Your task to perform on an android device: turn on airplane mode Image 0: 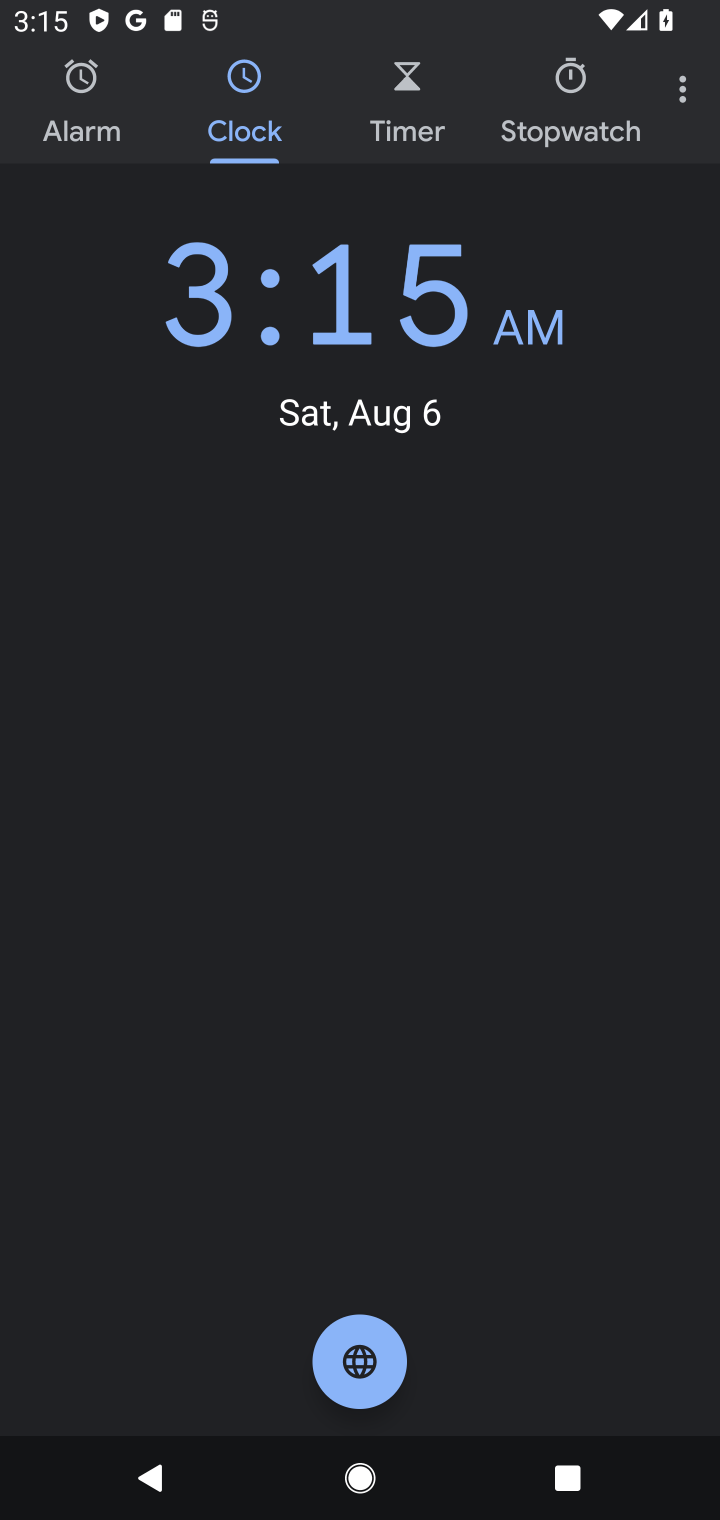
Step 0: press home button
Your task to perform on an android device: turn on airplane mode Image 1: 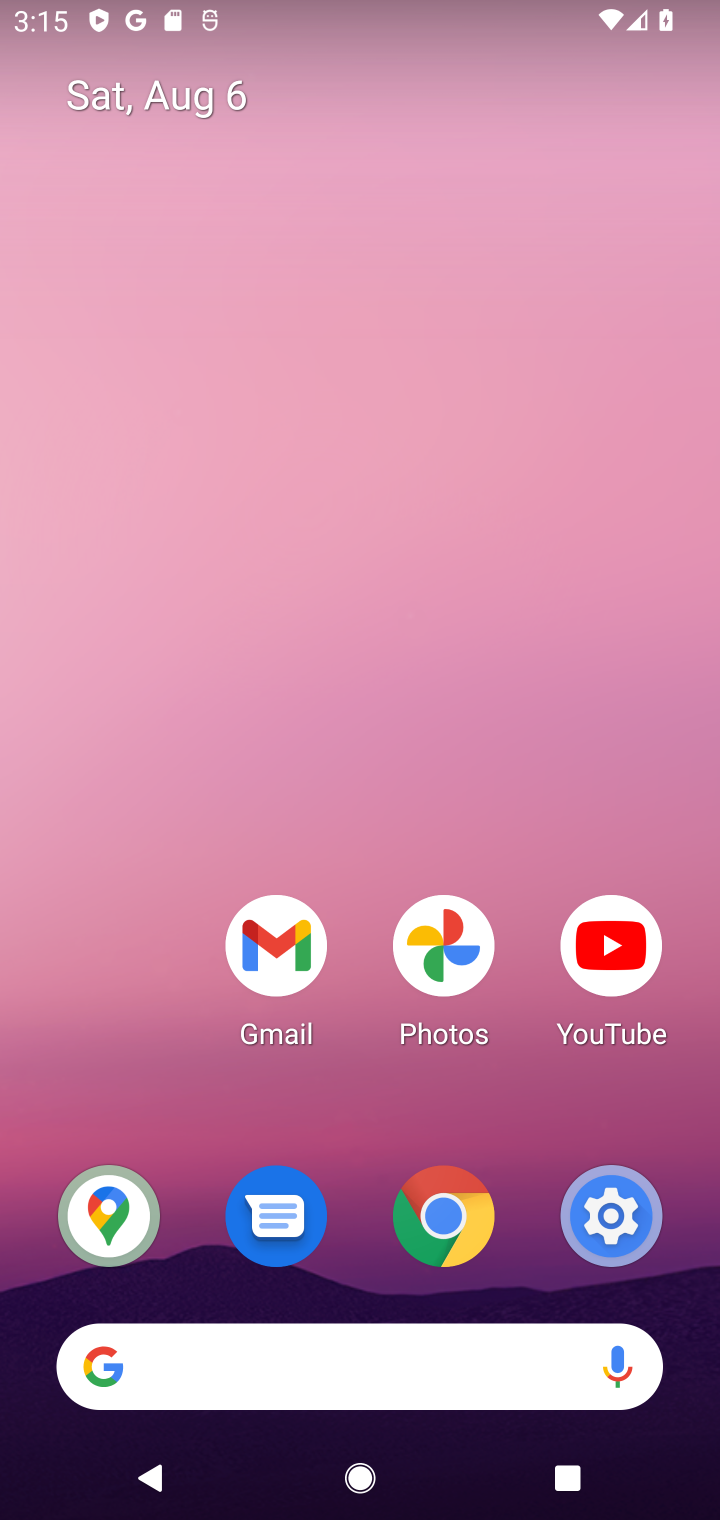
Step 1: click (625, 1252)
Your task to perform on an android device: turn on airplane mode Image 2: 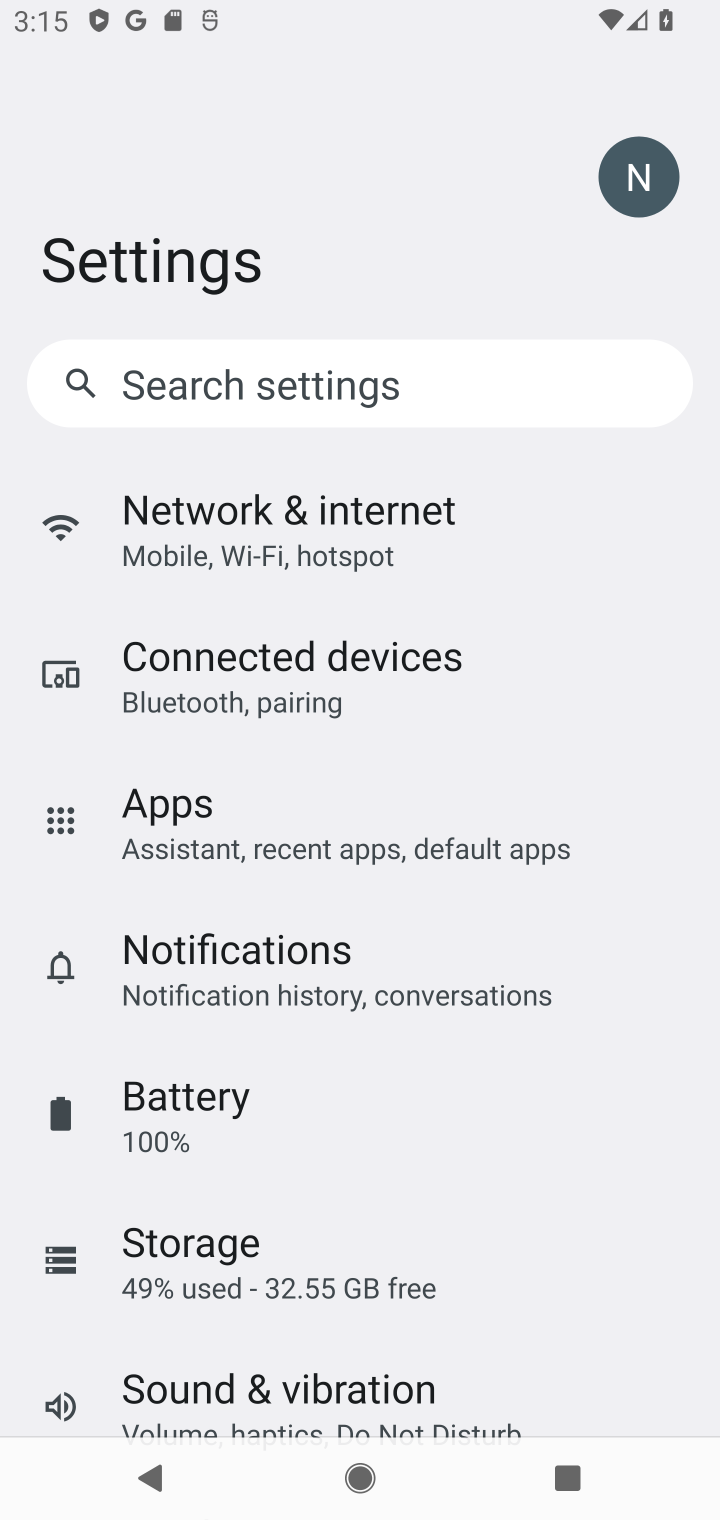
Step 2: click (341, 546)
Your task to perform on an android device: turn on airplane mode Image 3: 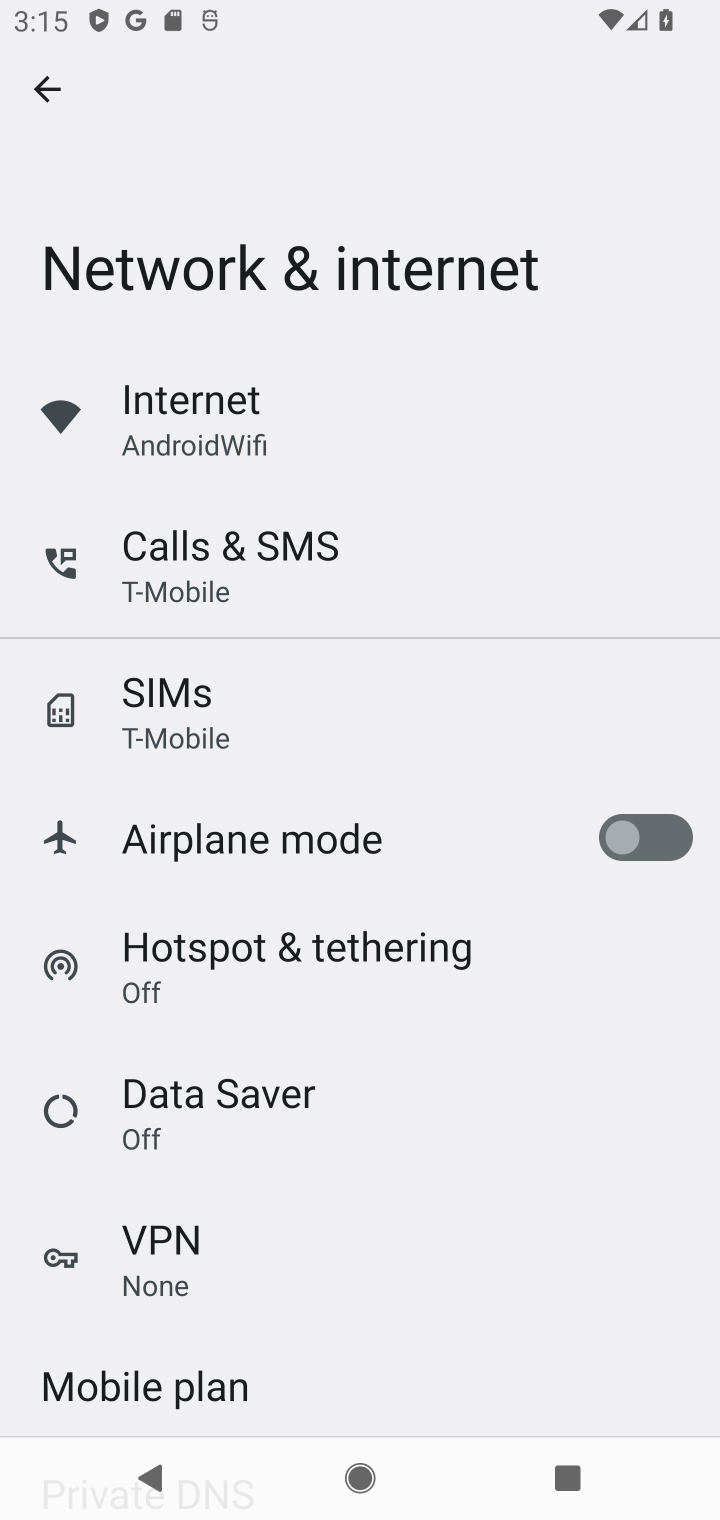
Step 3: click (642, 844)
Your task to perform on an android device: turn on airplane mode Image 4: 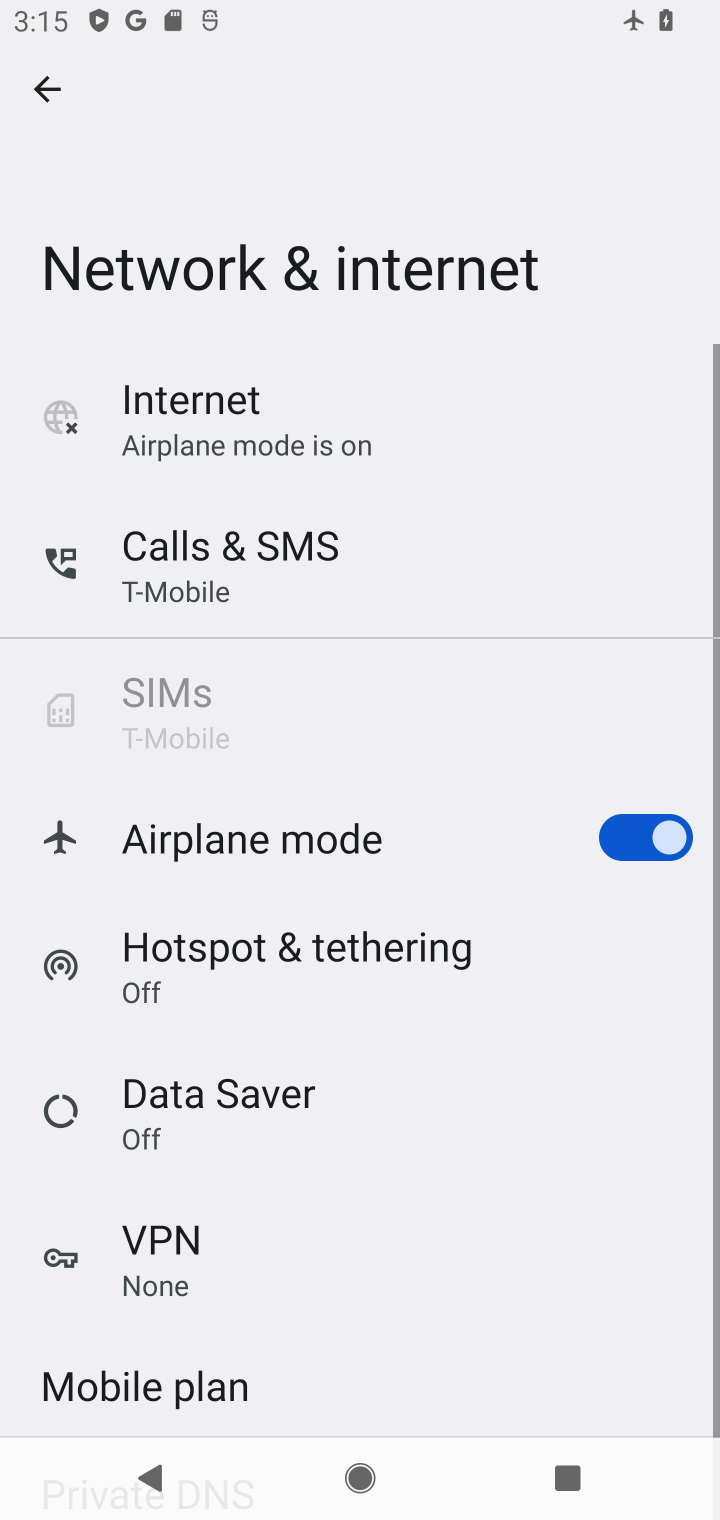
Step 4: task complete